Your task to perform on an android device: Show me the alarms in the clock app Image 0: 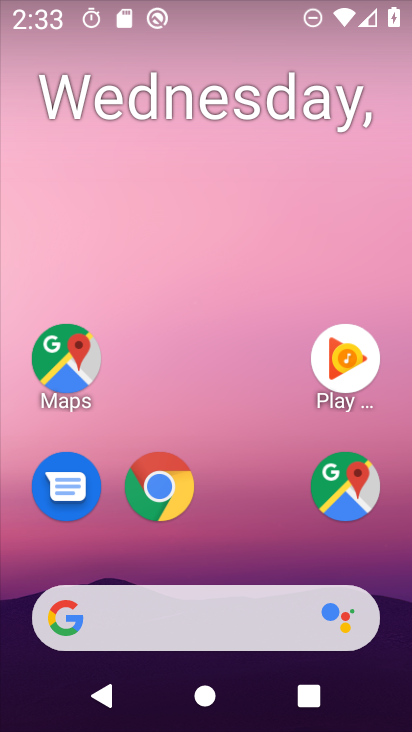
Step 0: press home button
Your task to perform on an android device: Show me the alarms in the clock app Image 1: 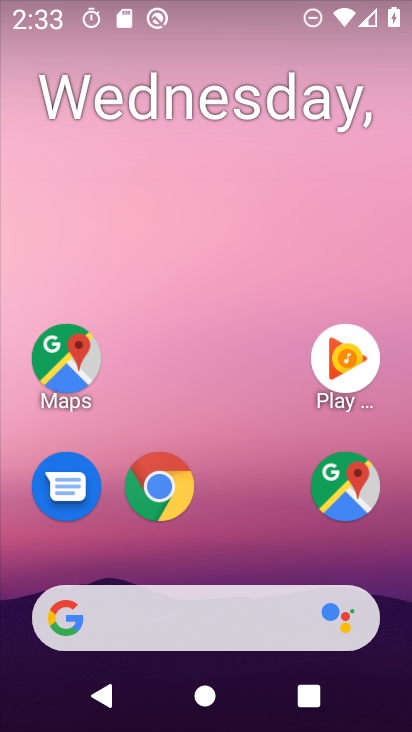
Step 1: drag from (242, 547) to (242, 101)
Your task to perform on an android device: Show me the alarms in the clock app Image 2: 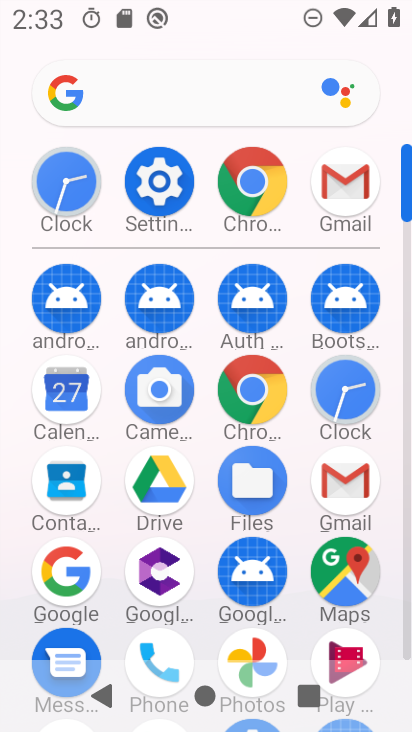
Step 2: click (361, 406)
Your task to perform on an android device: Show me the alarms in the clock app Image 3: 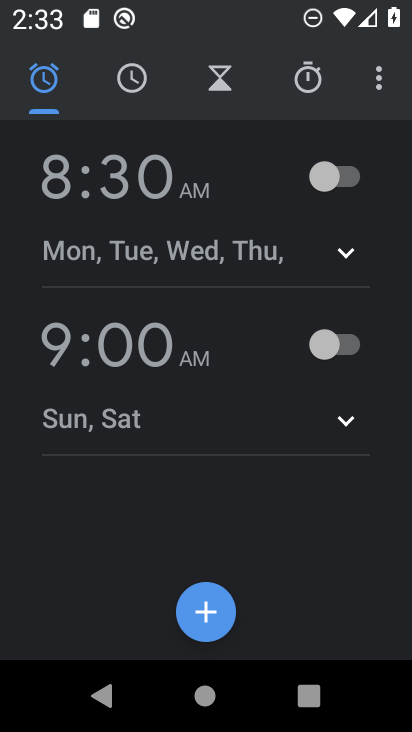
Step 3: task complete